Your task to perform on an android device: choose inbox layout in the gmail app Image 0: 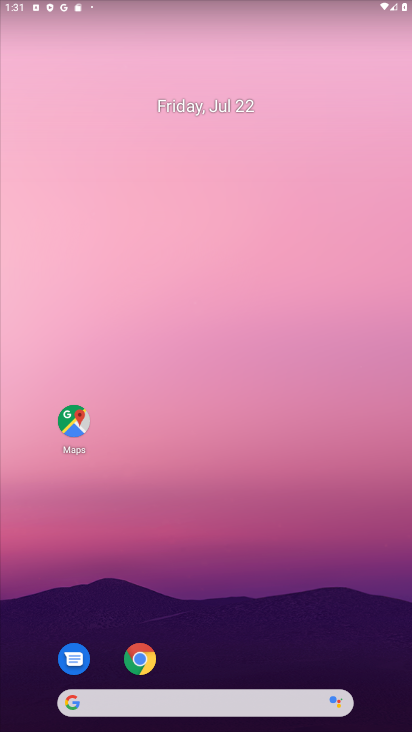
Step 0: drag from (240, 710) to (273, 125)
Your task to perform on an android device: choose inbox layout in the gmail app Image 1: 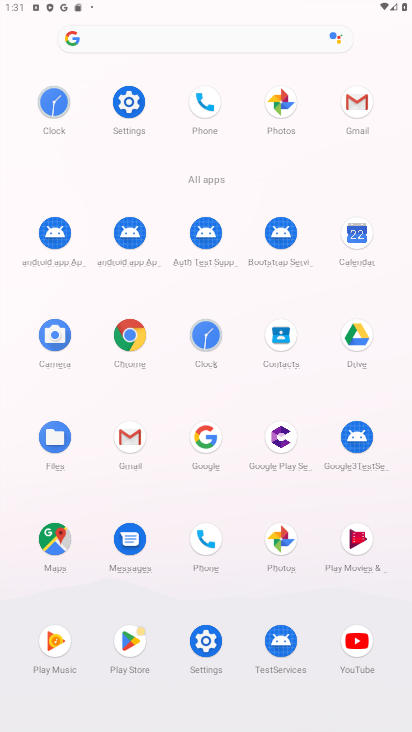
Step 1: click (140, 439)
Your task to perform on an android device: choose inbox layout in the gmail app Image 2: 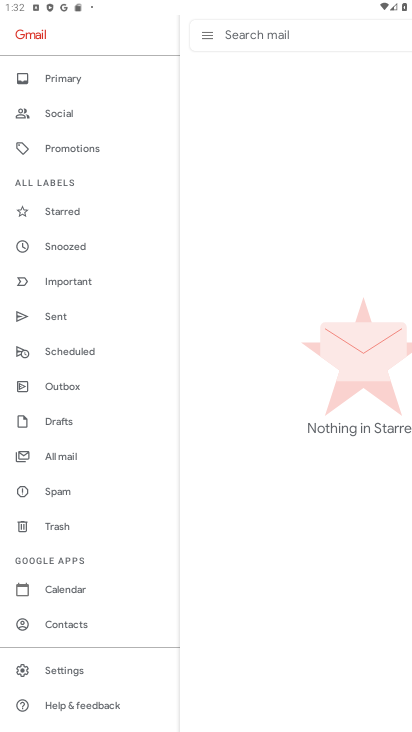
Step 2: click (75, 667)
Your task to perform on an android device: choose inbox layout in the gmail app Image 3: 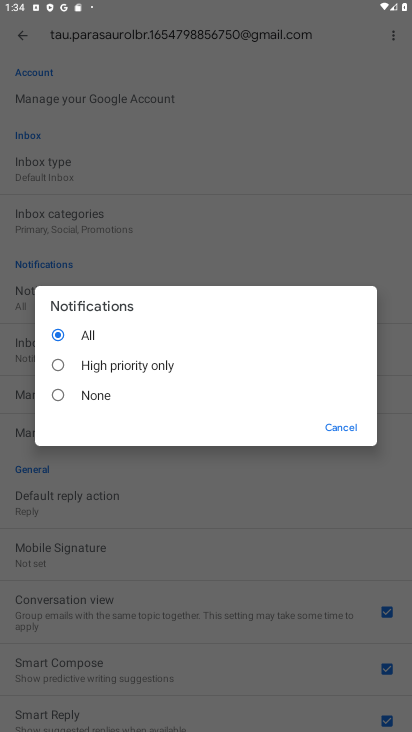
Step 3: task complete